Your task to perform on an android device: Open Google Chrome and click the shortcut for Amazon.com Image 0: 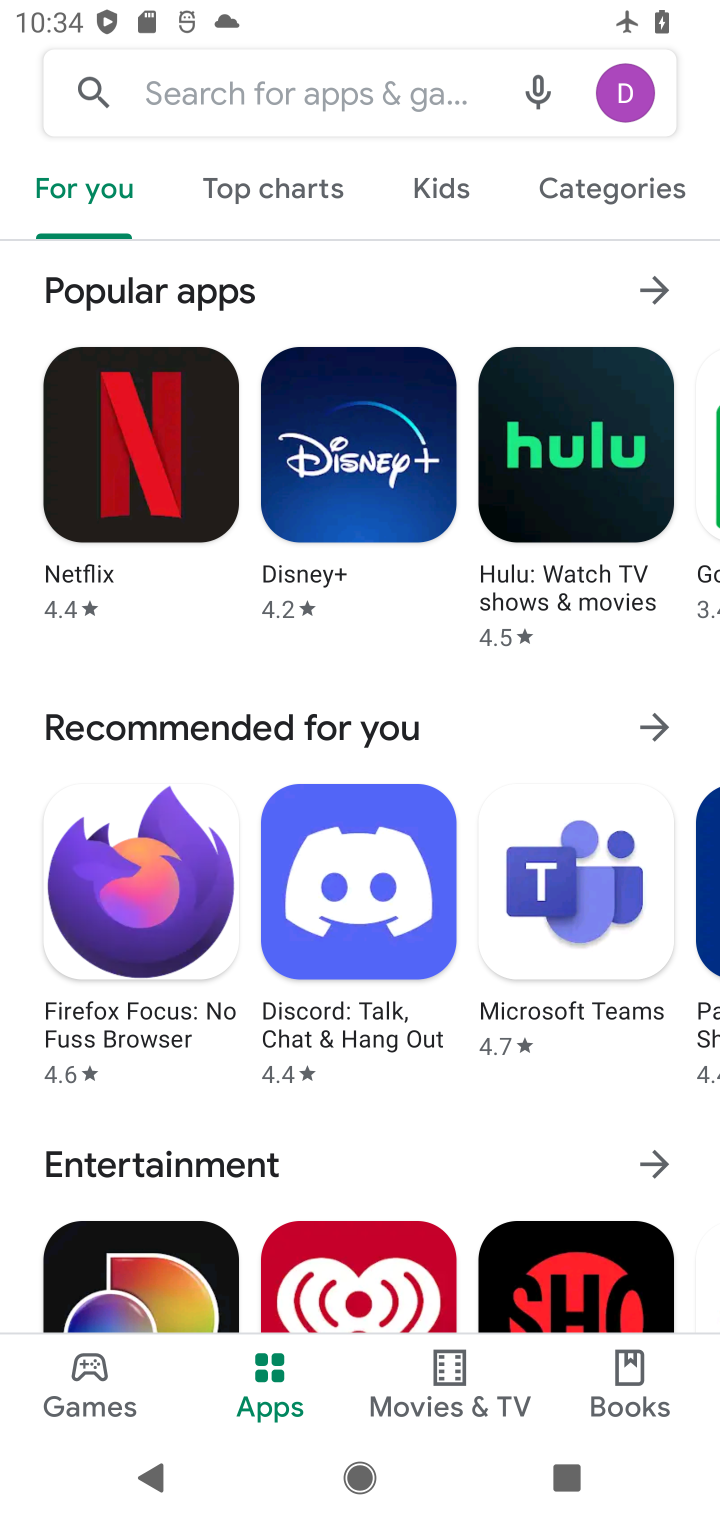
Step 0: press home button
Your task to perform on an android device: Open Google Chrome and click the shortcut for Amazon.com Image 1: 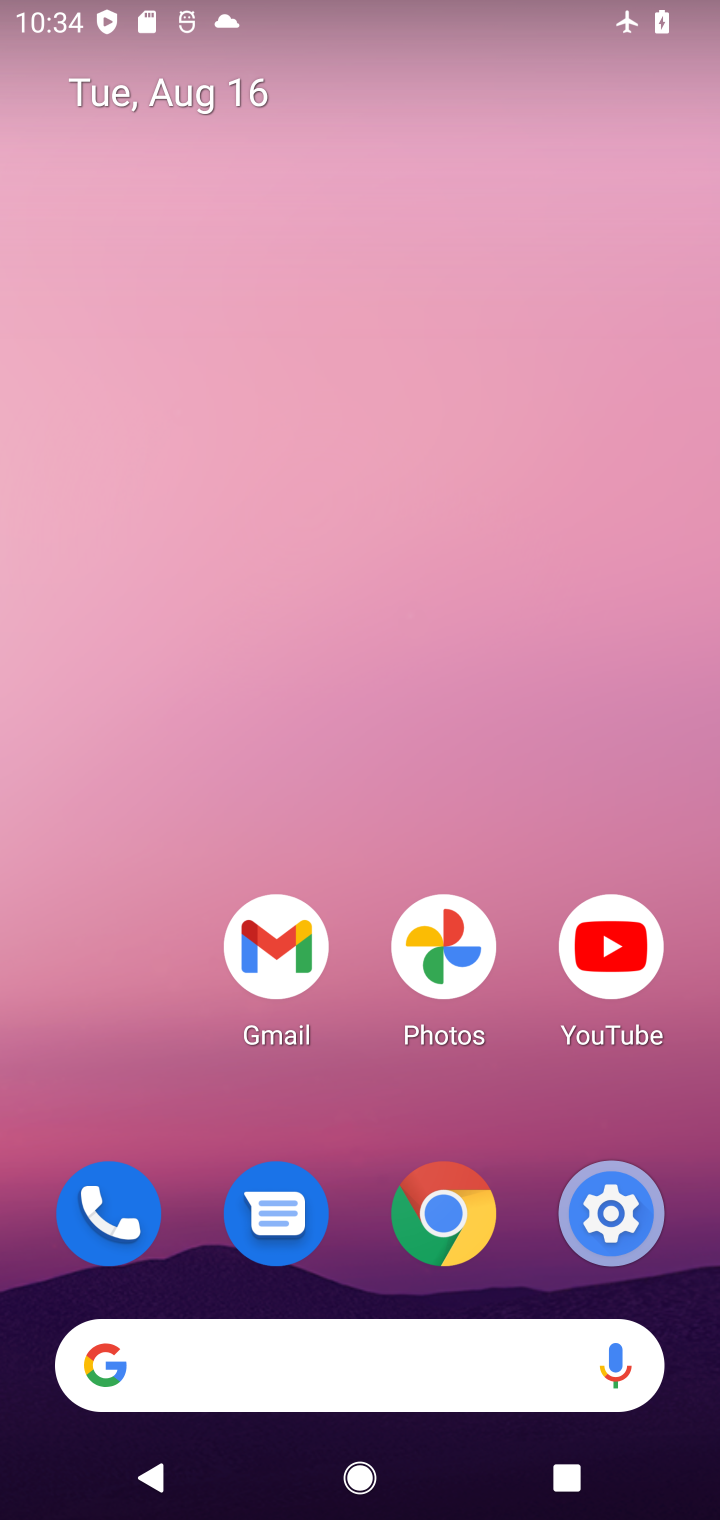
Step 1: drag from (329, 883) to (360, 0)
Your task to perform on an android device: Open Google Chrome and click the shortcut for Amazon.com Image 2: 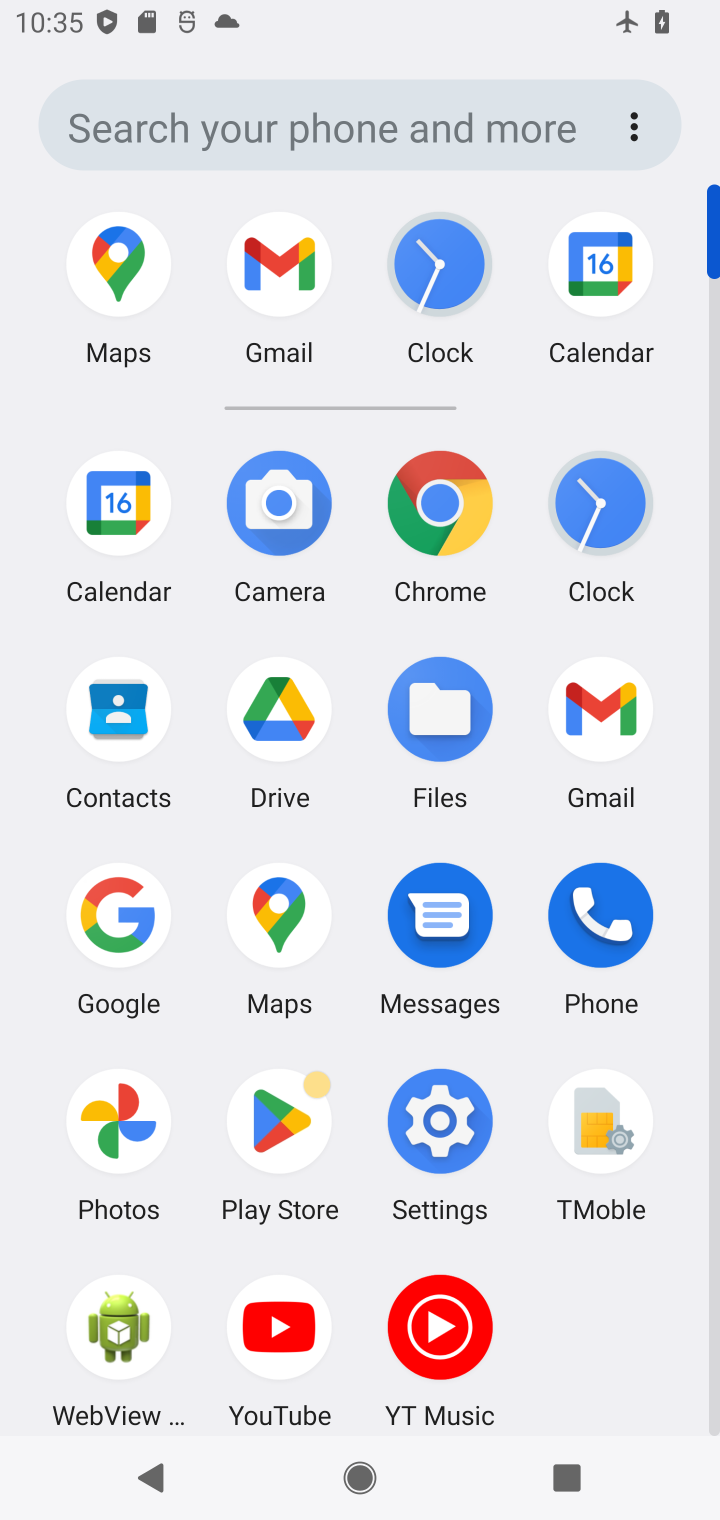
Step 2: click (425, 477)
Your task to perform on an android device: Open Google Chrome and click the shortcut for Amazon.com Image 3: 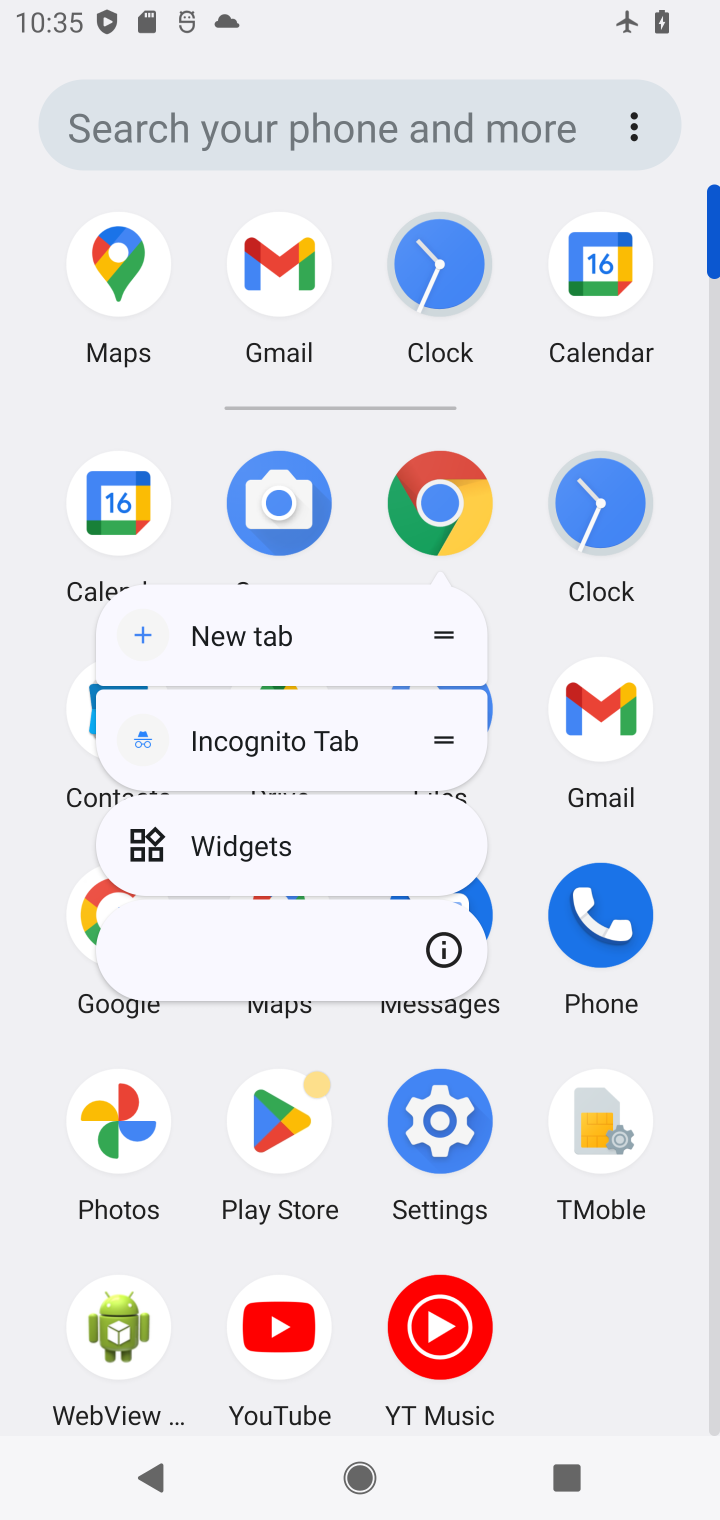
Step 3: click (468, 495)
Your task to perform on an android device: Open Google Chrome and click the shortcut for Amazon.com Image 4: 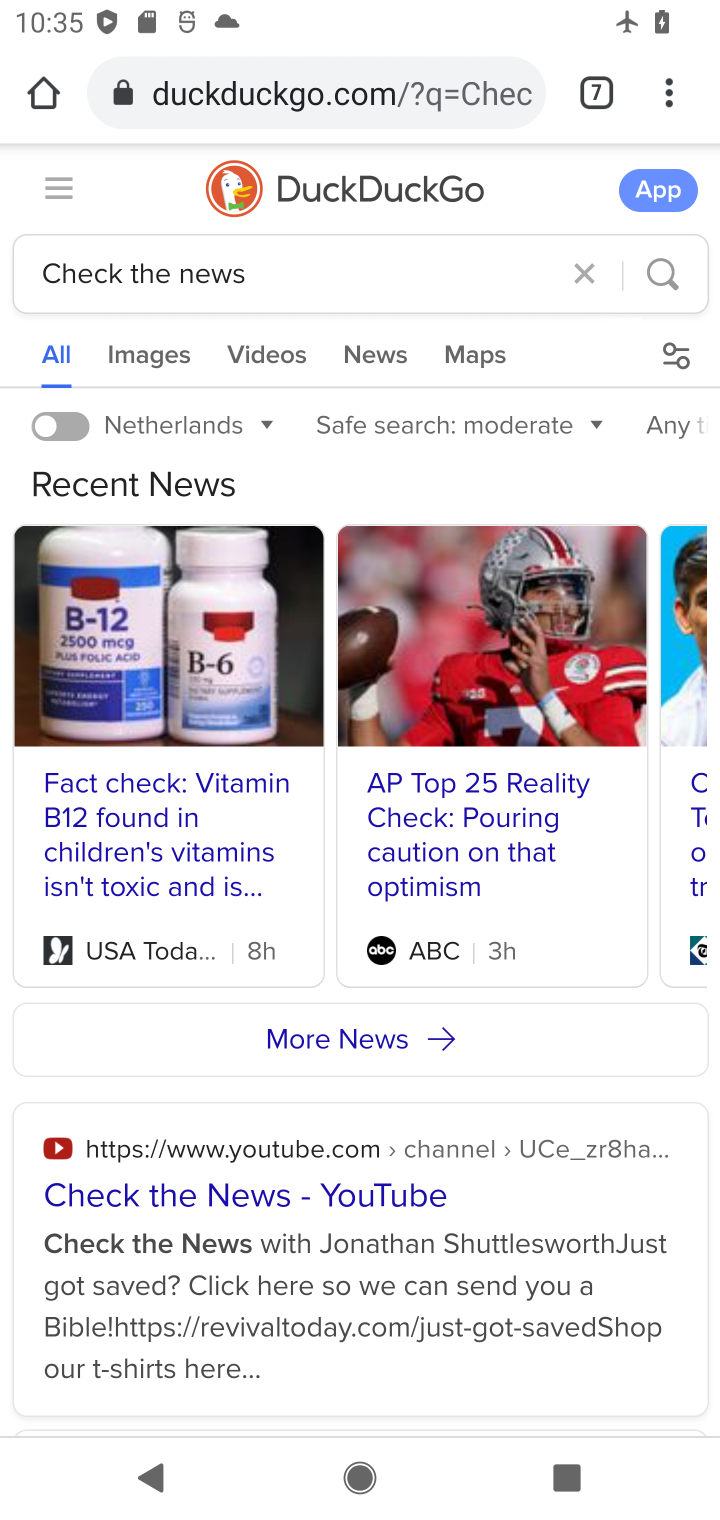
Step 4: click (690, 78)
Your task to perform on an android device: Open Google Chrome and click the shortcut for Amazon.com Image 5: 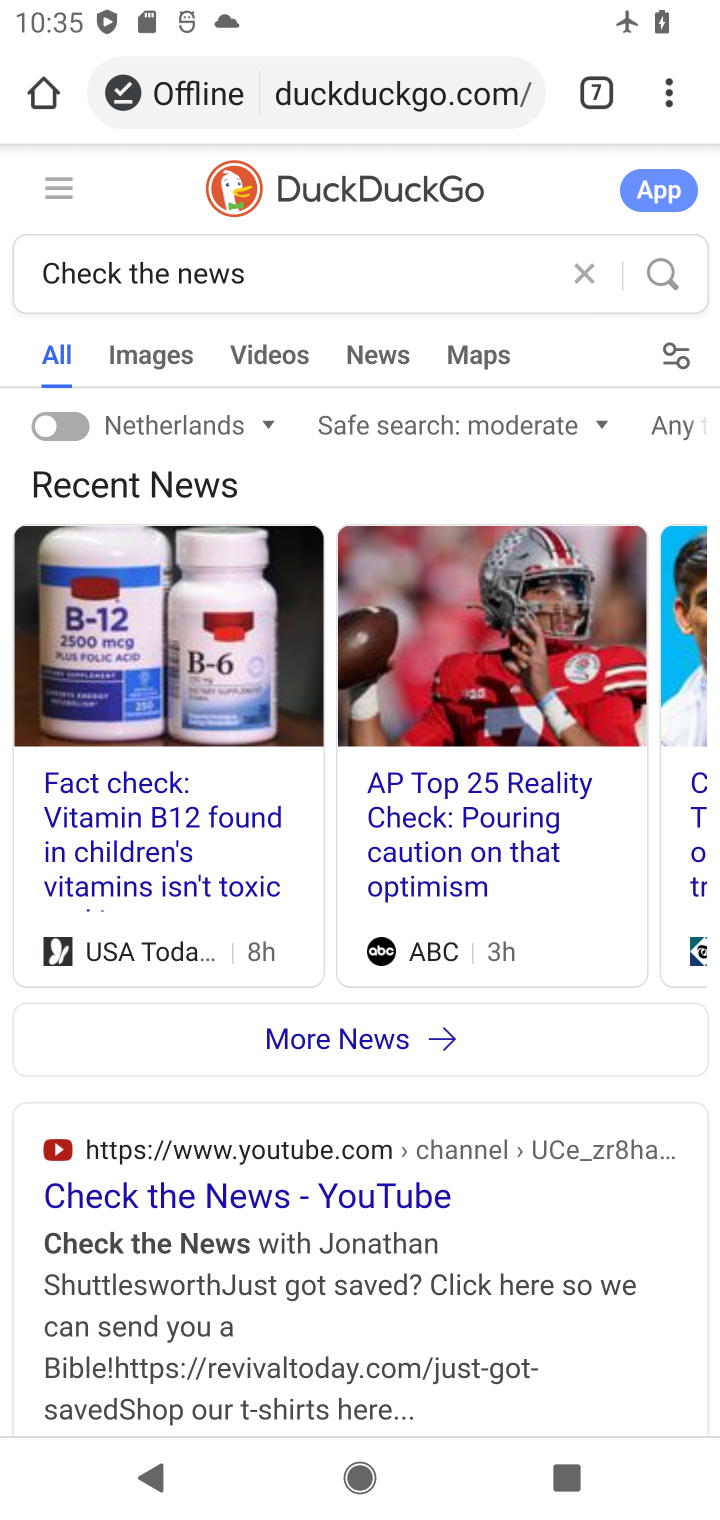
Step 5: click (671, 80)
Your task to perform on an android device: Open Google Chrome and click the shortcut for Amazon.com Image 6: 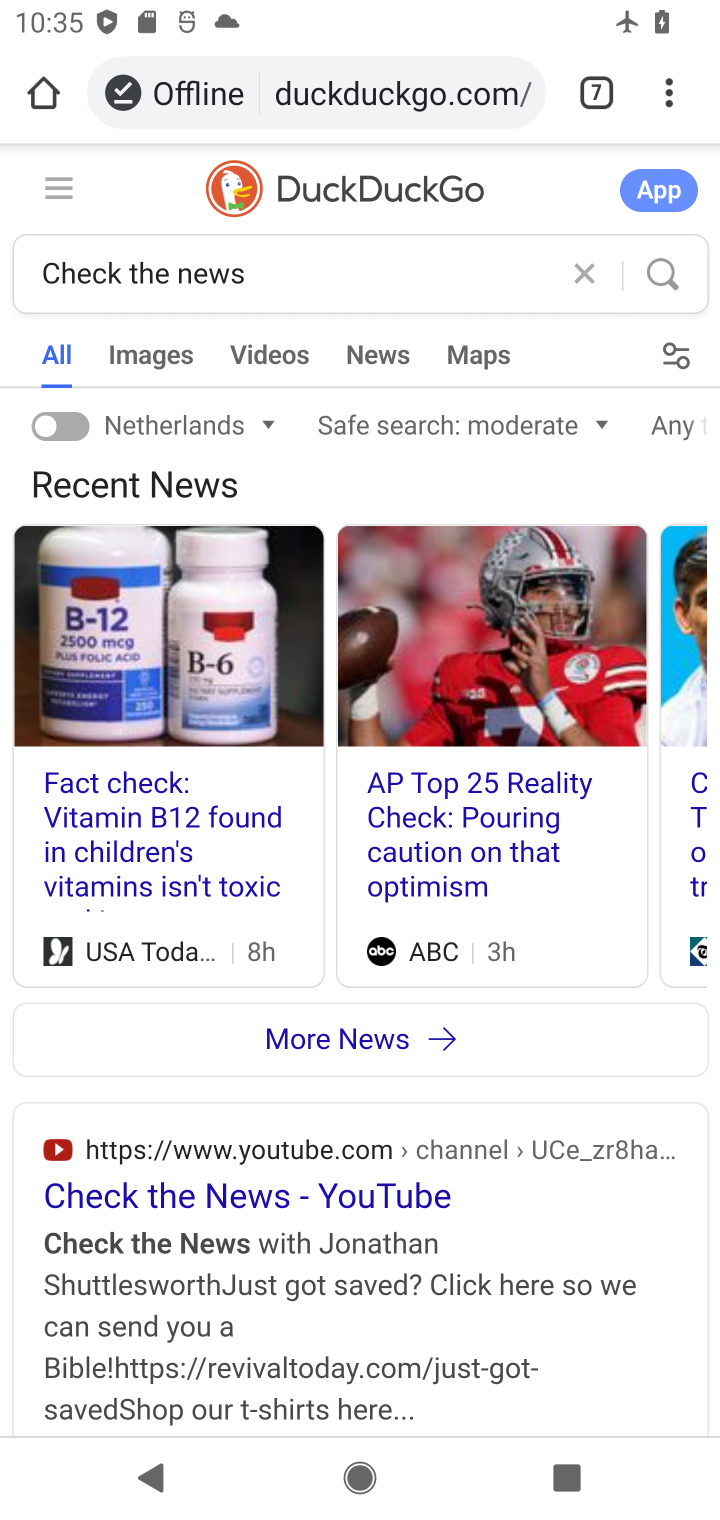
Step 6: click (659, 77)
Your task to perform on an android device: Open Google Chrome and click the shortcut for Amazon.com Image 7: 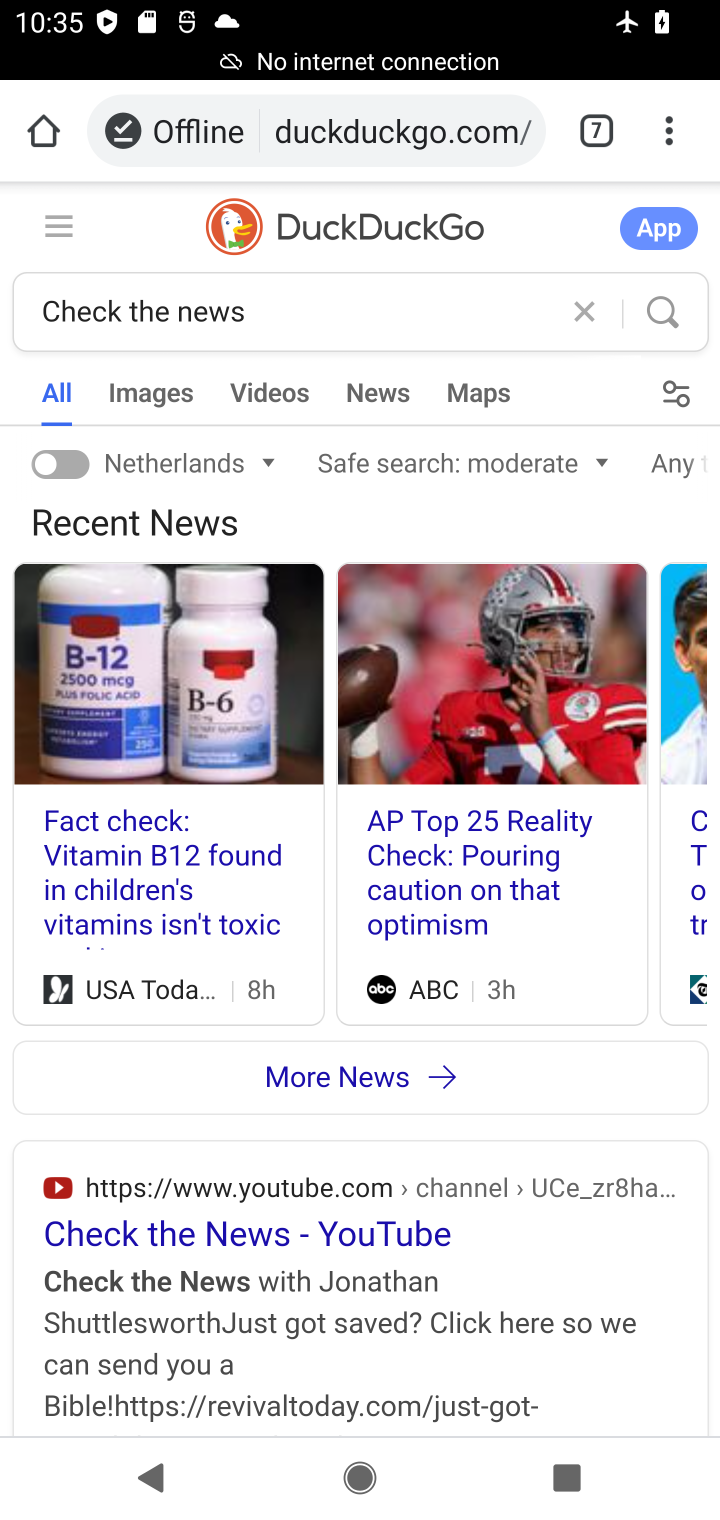
Step 7: click (663, 131)
Your task to perform on an android device: Open Google Chrome and click the shortcut for Amazon.com Image 8: 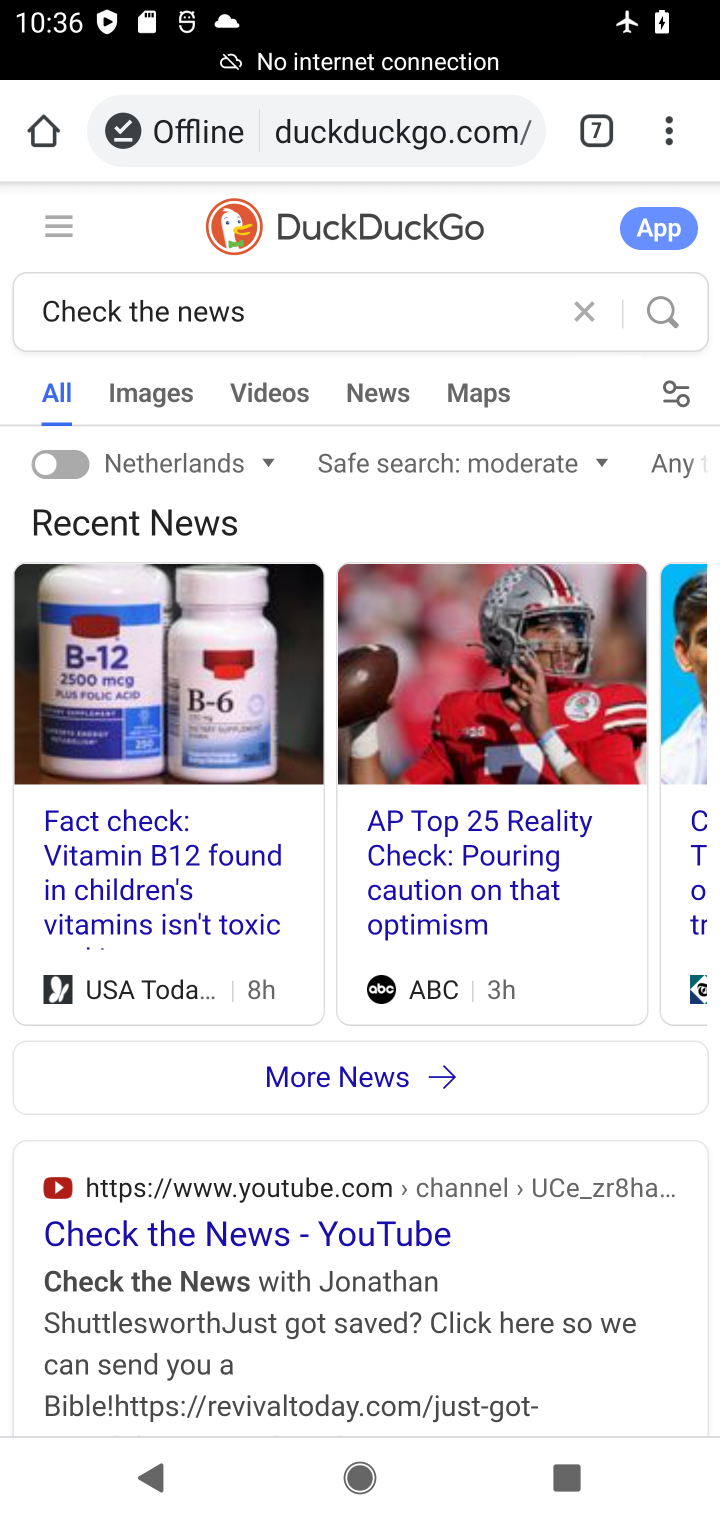
Step 8: click (663, 127)
Your task to perform on an android device: Open Google Chrome and click the shortcut for Amazon.com Image 9: 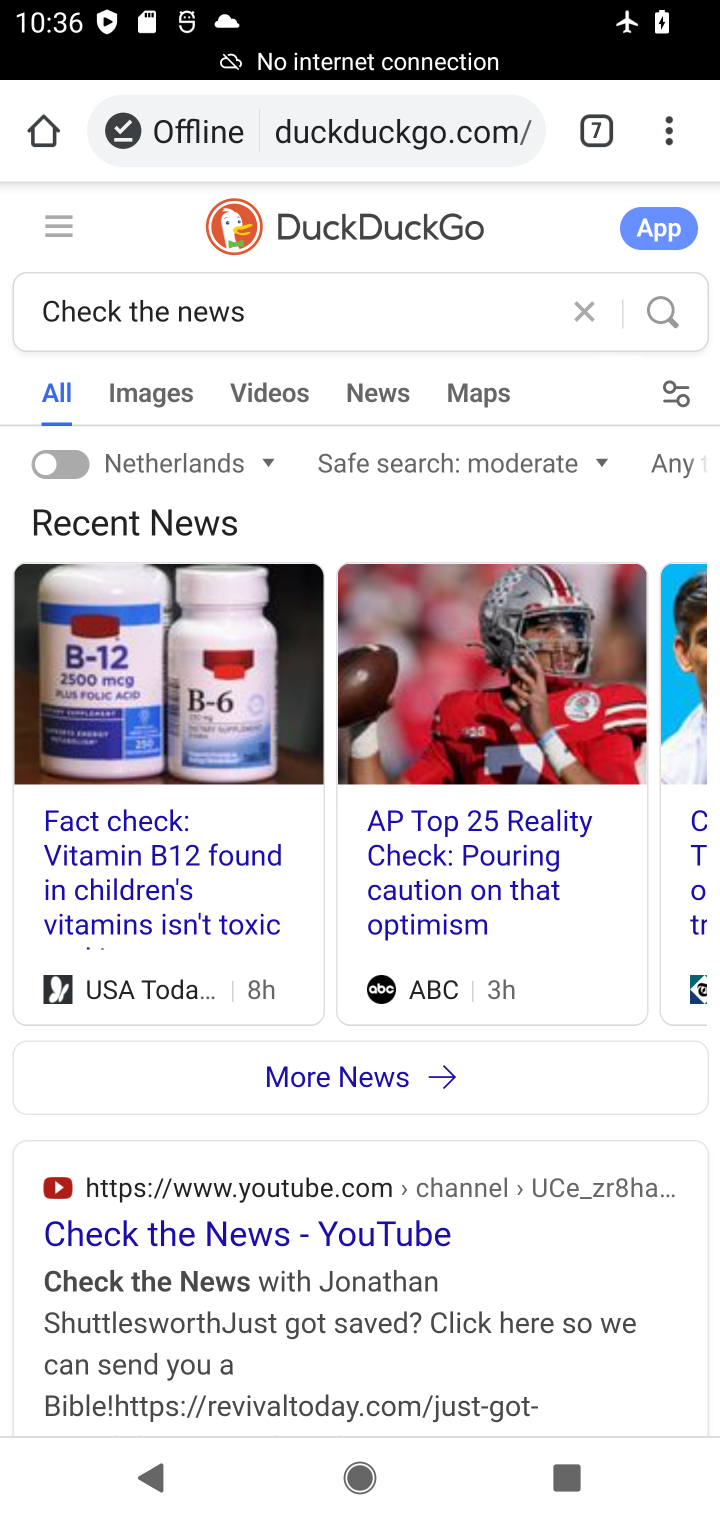
Step 9: click (596, 103)
Your task to perform on an android device: Open Google Chrome and click the shortcut for Amazon.com Image 10: 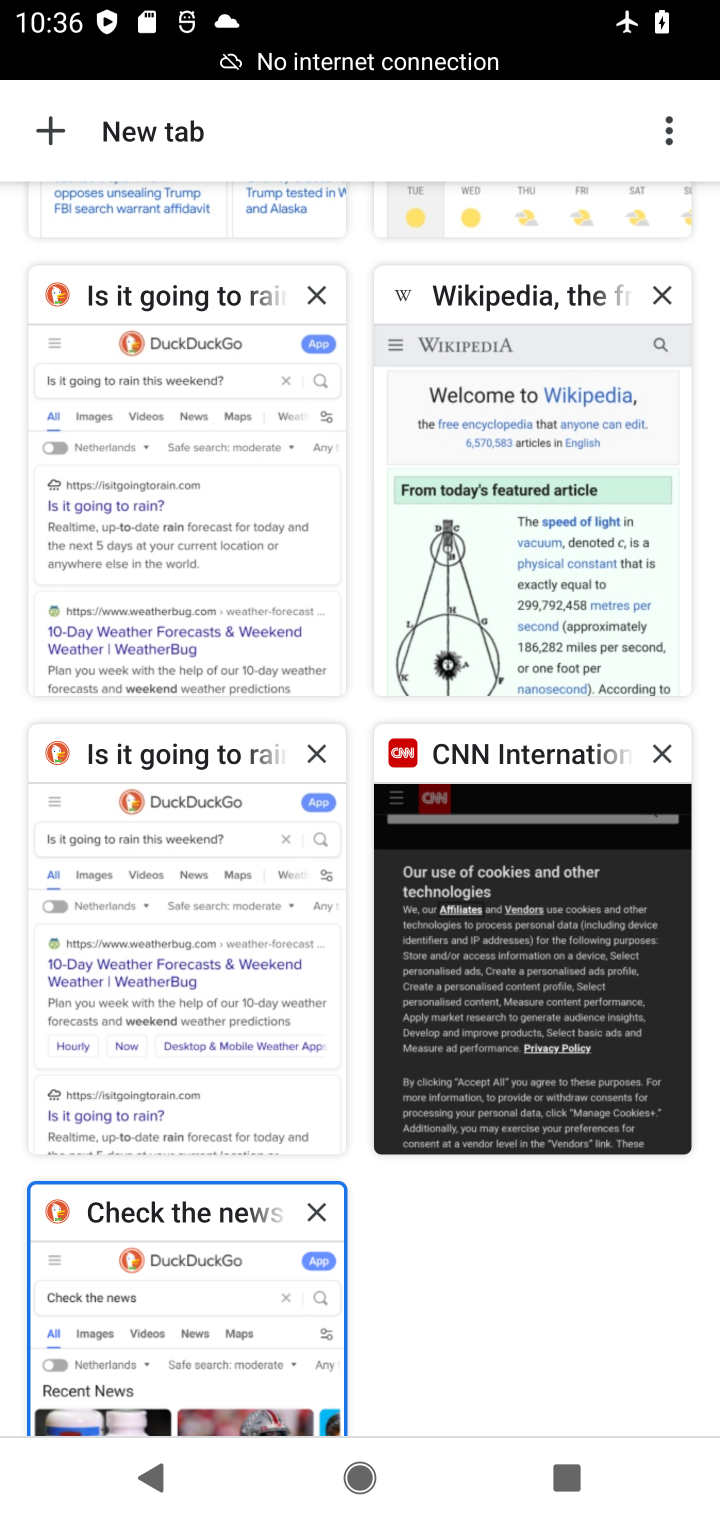
Step 10: click (63, 108)
Your task to perform on an android device: Open Google Chrome and click the shortcut for Amazon.com Image 11: 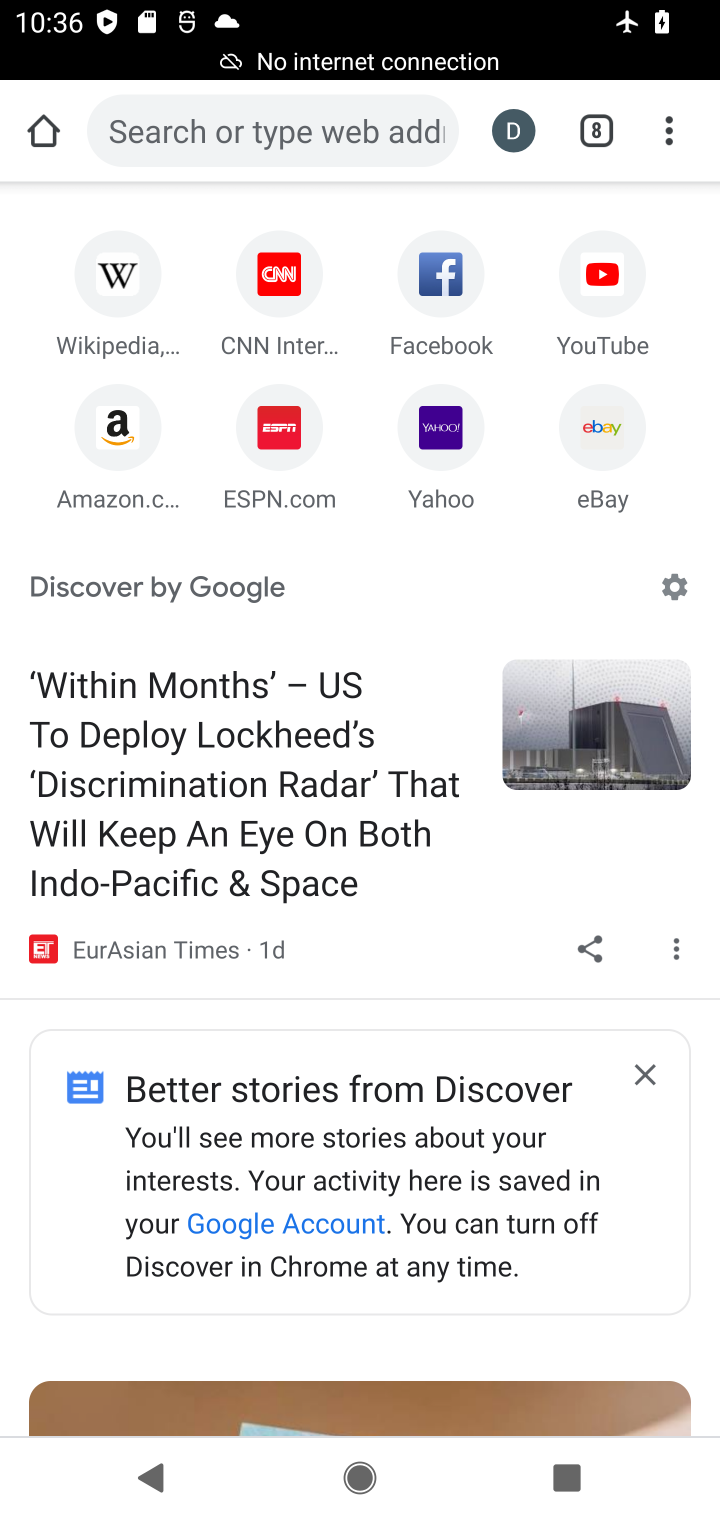
Step 11: click (126, 412)
Your task to perform on an android device: Open Google Chrome and click the shortcut for Amazon.com Image 12: 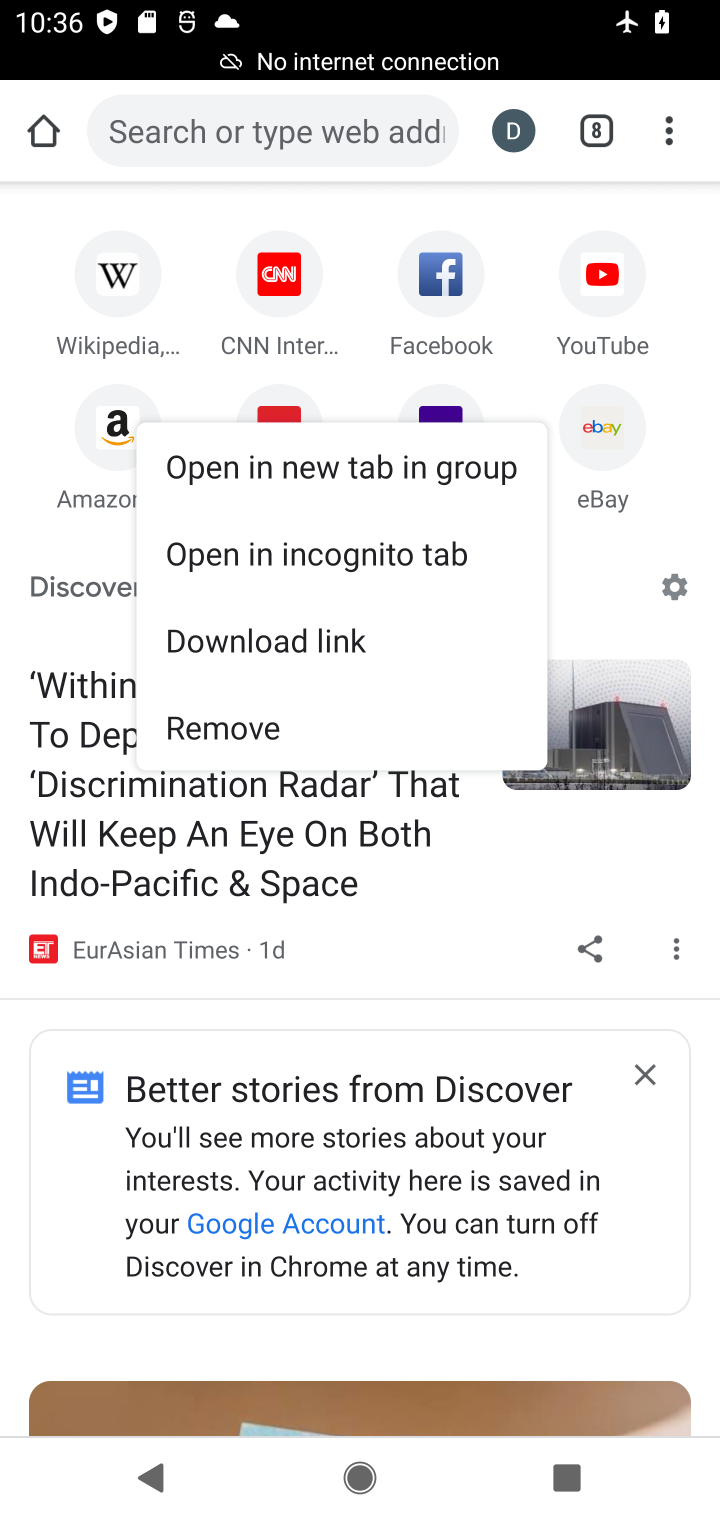
Step 12: click (126, 412)
Your task to perform on an android device: Open Google Chrome and click the shortcut for Amazon.com Image 13: 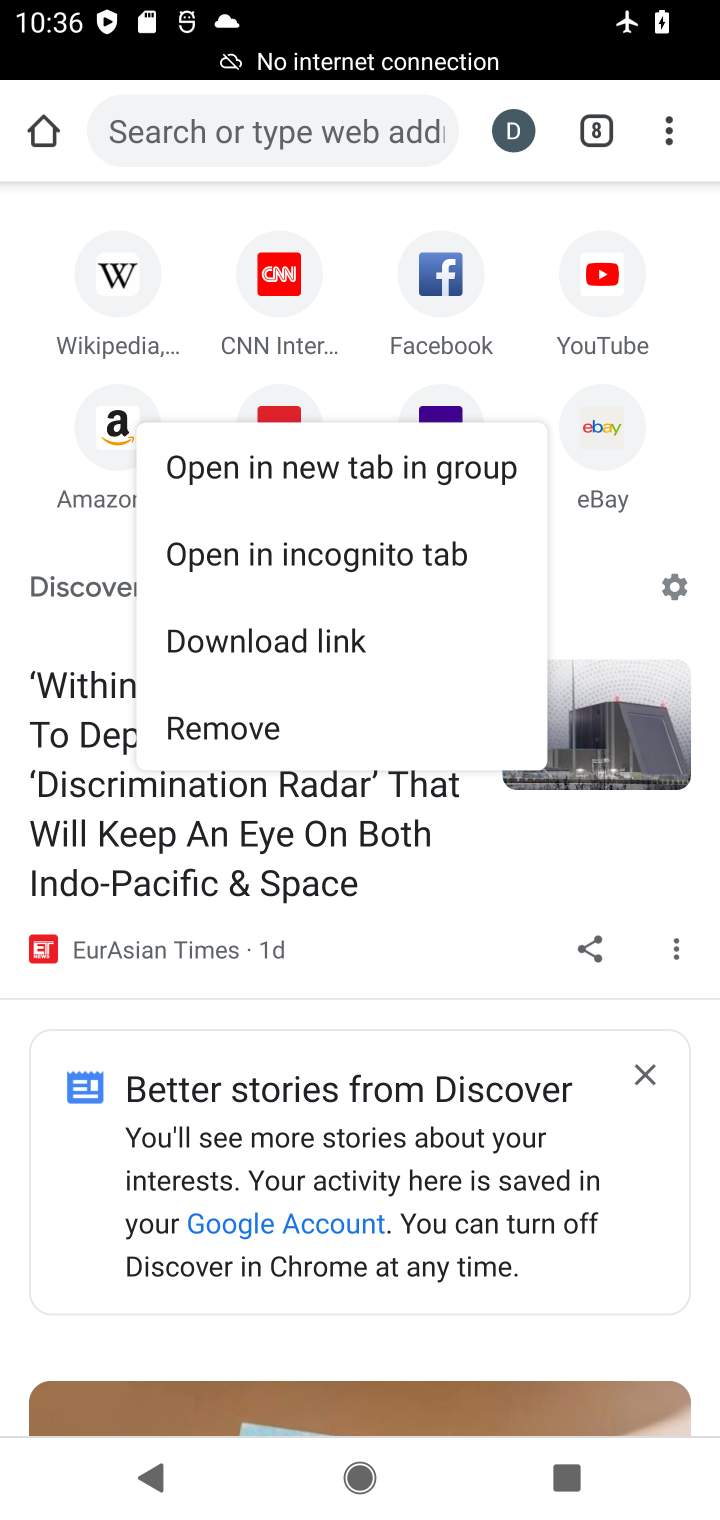
Step 13: click (126, 412)
Your task to perform on an android device: Open Google Chrome and click the shortcut for Amazon.com Image 14: 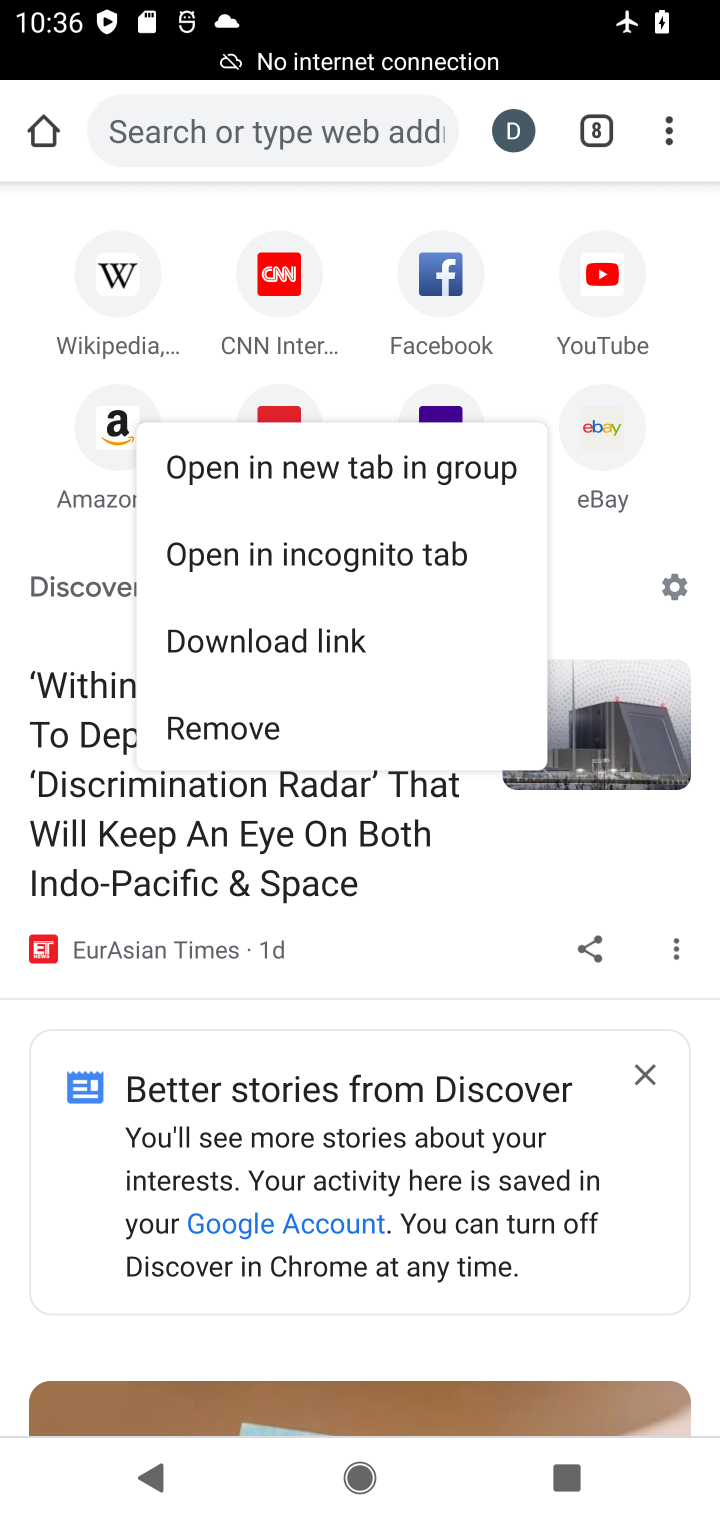
Step 14: task complete